Your task to perform on an android device: turn on translation in the chrome app Image 0: 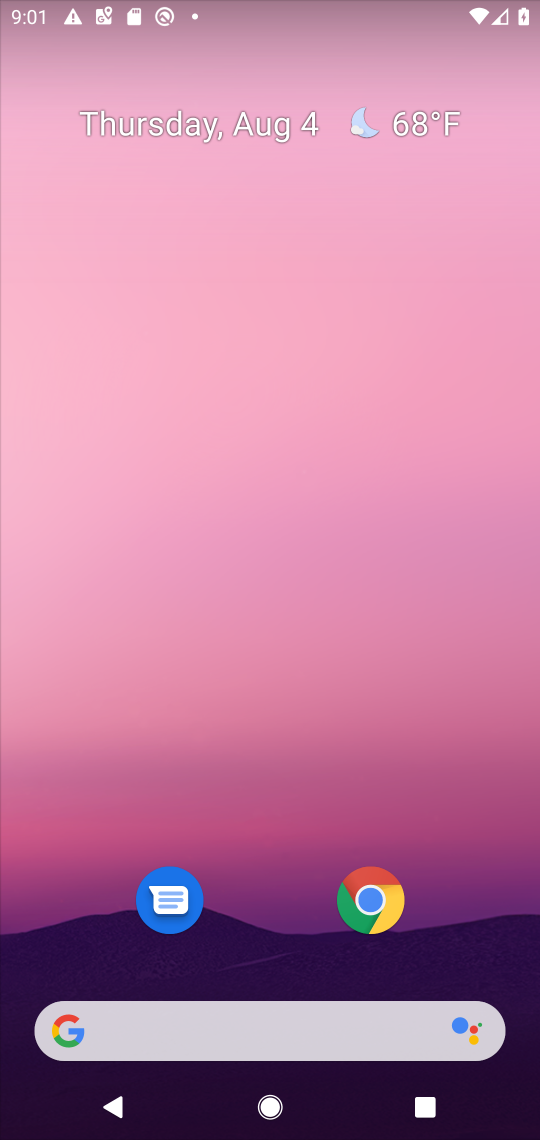
Step 0: click (372, 896)
Your task to perform on an android device: turn on translation in the chrome app Image 1: 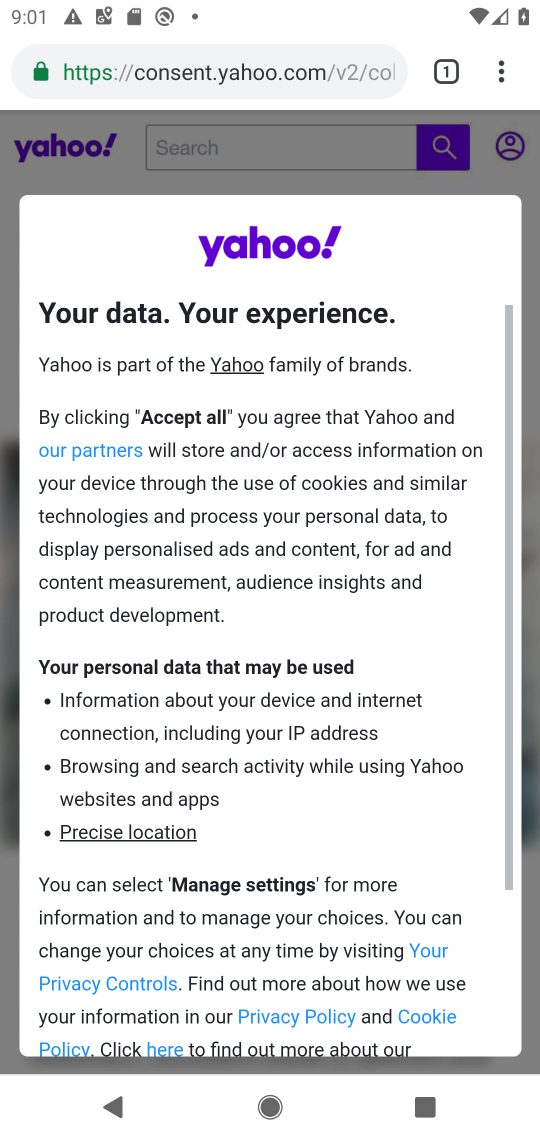
Step 1: click (504, 77)
Your task to perform on an android device: turn on translation in the chrome app Image 2: 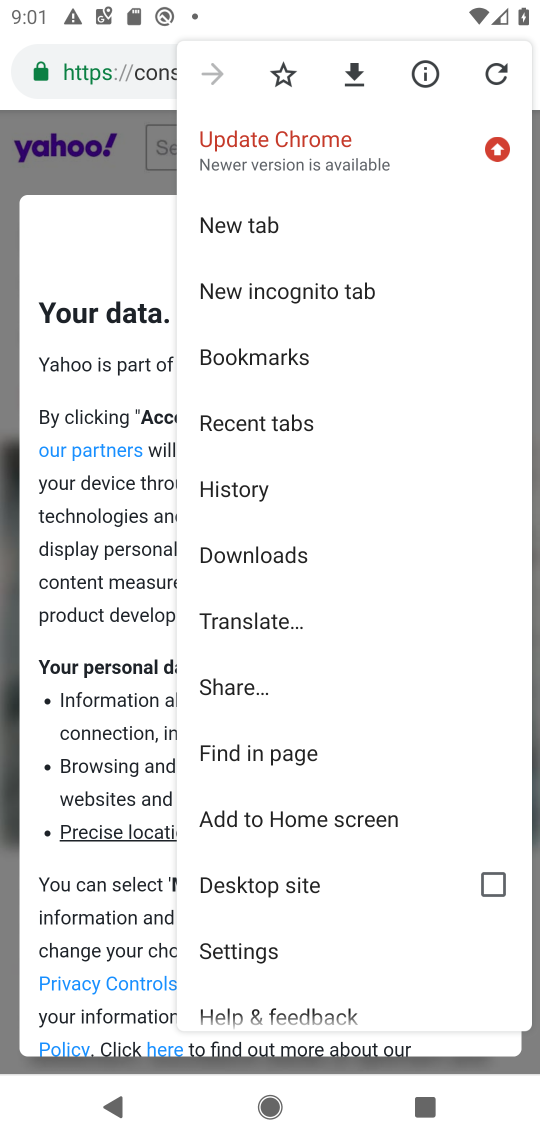
Step 2: click (232, 963)
Your task to perform on an android device: turn on translation in the chrome app Image 3: 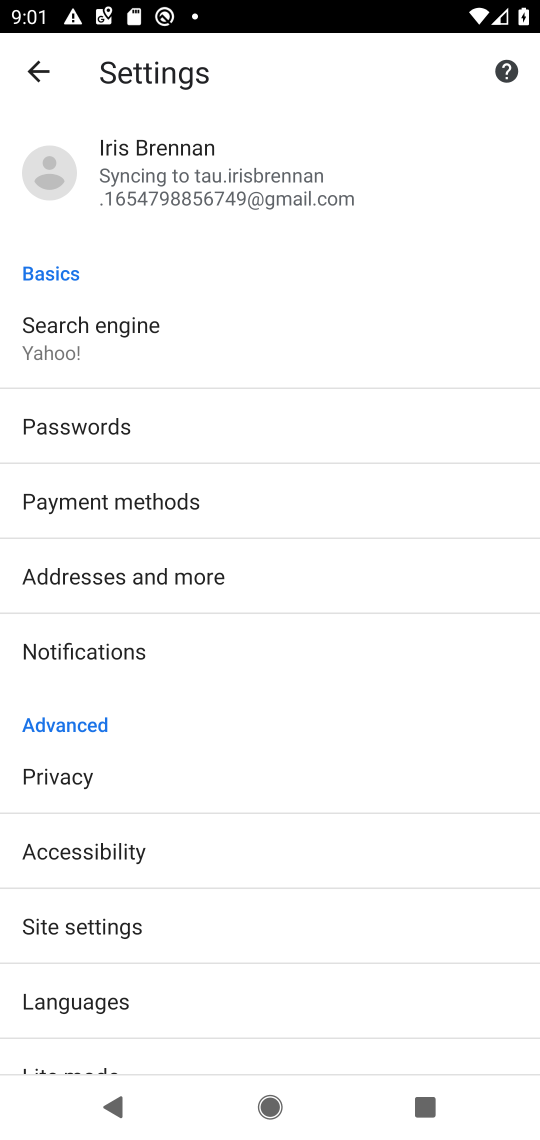
Step 3: click (92, 1006)
Your task to perform on an android device: turn on translation in the chrome app Image 4: 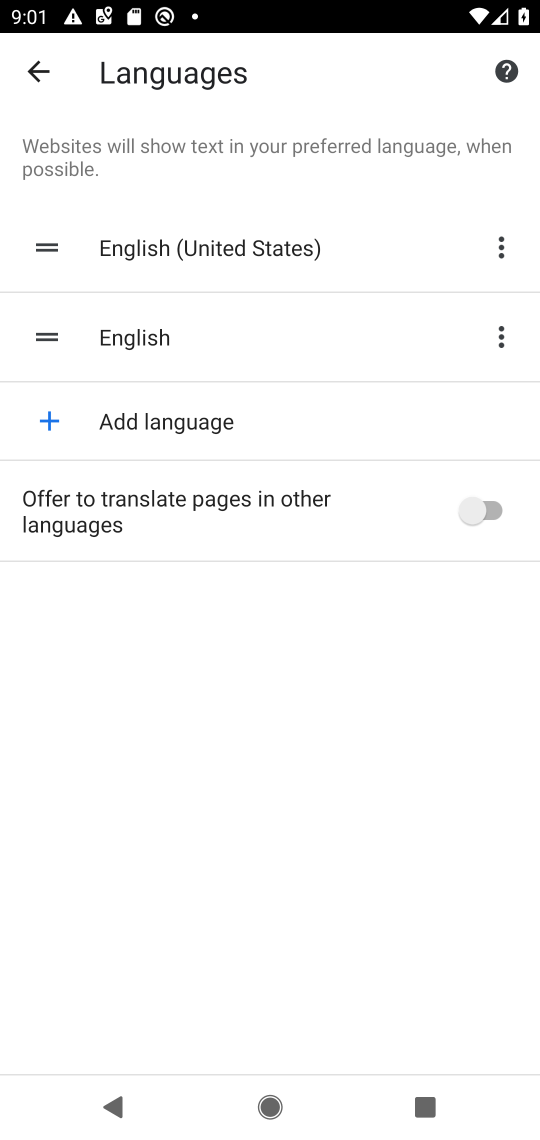
Step 4: click (481, 512)
Your task to perform on an android device: turn on translation in the chrome app Image 5: 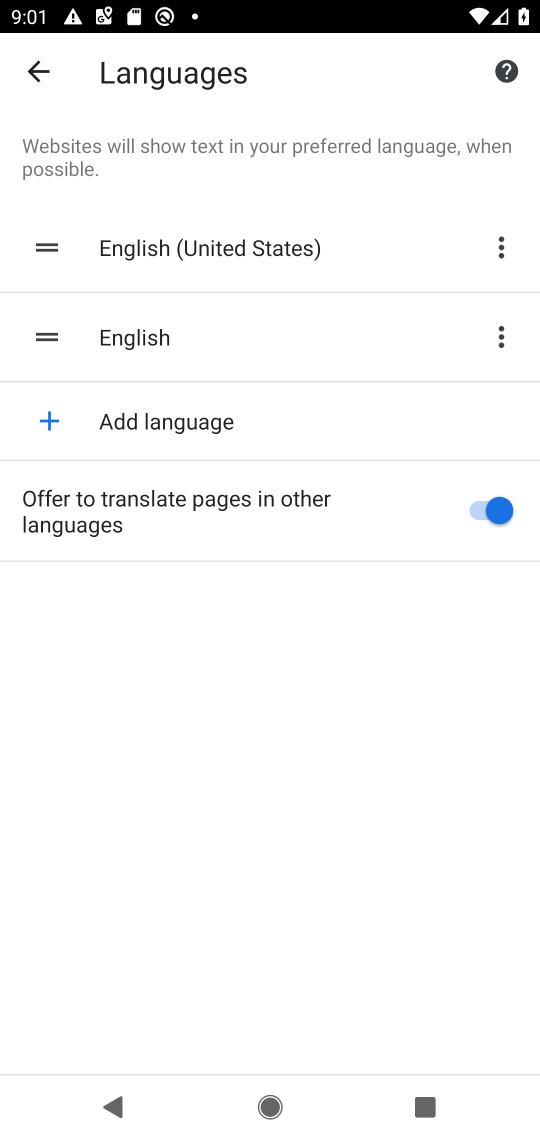
Step 5: task complete